Your task to perform on an android device: turn off sleep mode Image 0: 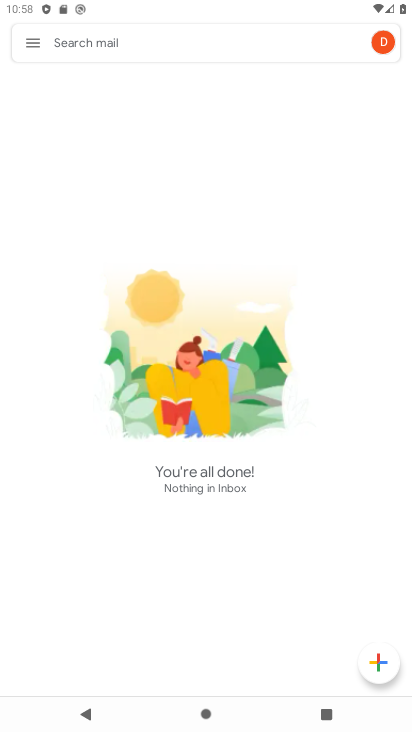
Step 0: press home button
Your task to perform on an android device: turn off sleep mode Image 1: 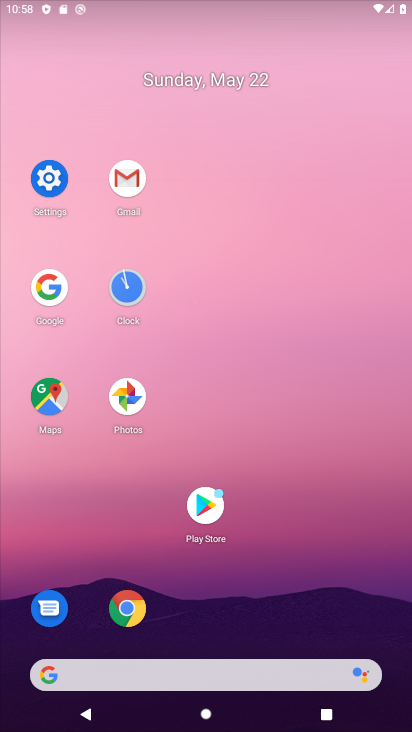
Step 1: click (62, 188)
Your task to perform on an android device: turn off sleep mode Image 2: 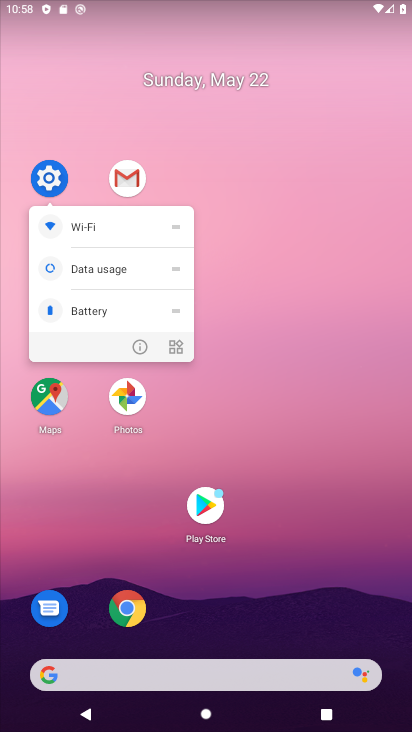
Step 2: click (67, 173)
Your task to perform on an android device: turn off sleep mode Image 3: 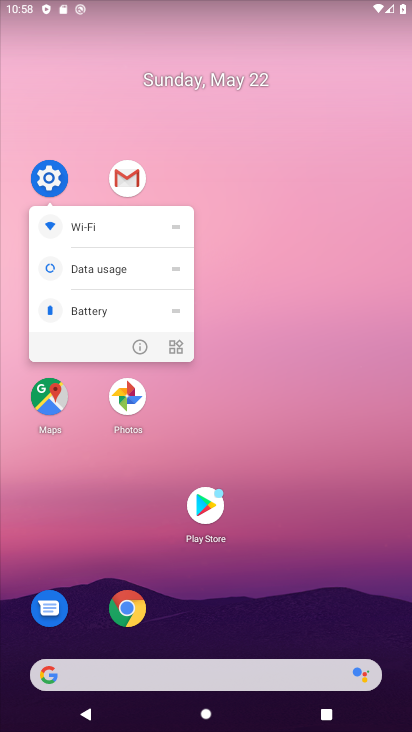
Step 3: click (64, 182)
Your task to perform on an android device: turn off sleep mode Image 4: 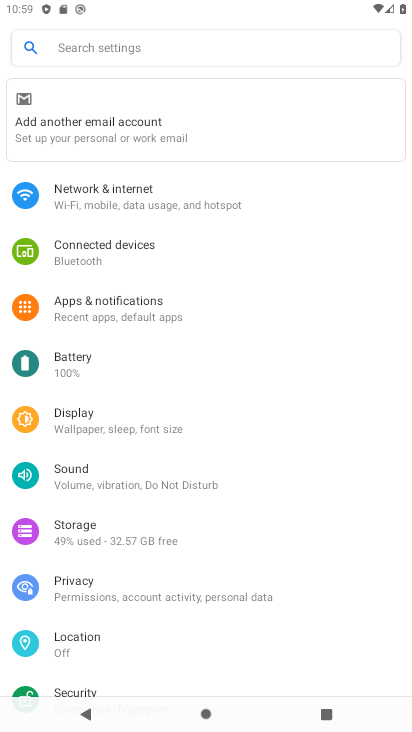
Step 4: click (127, 419)
Your task to perform on an android device: turn off sleep mode Image 5: 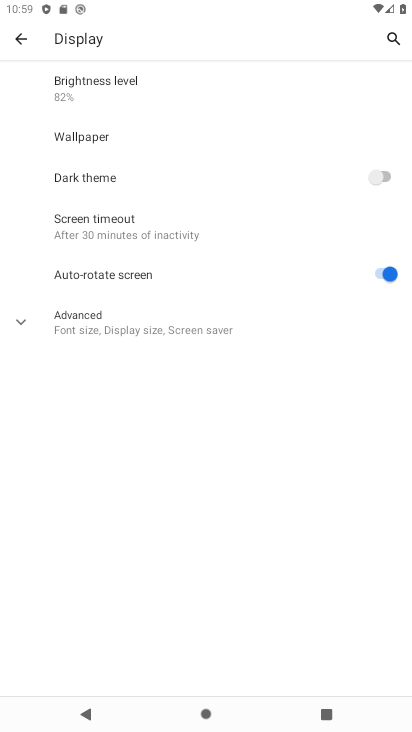
Step 5: click (143, 225)
Your task to perform on an android device: turn off sleep mode Image 6: 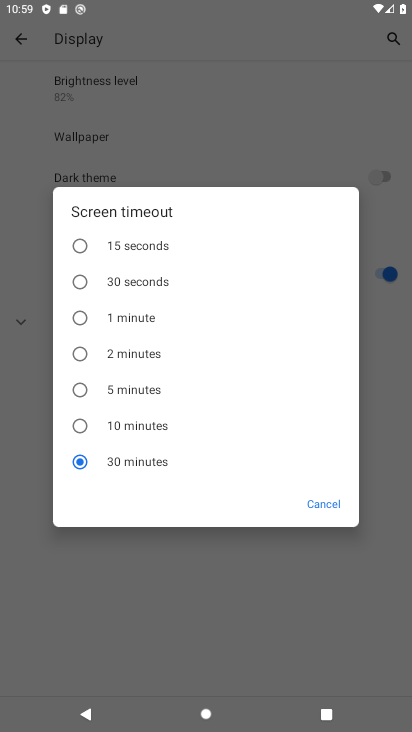
Step 6: task complete